Your task to perform on an android device: Toggle the flashlight Image 0: 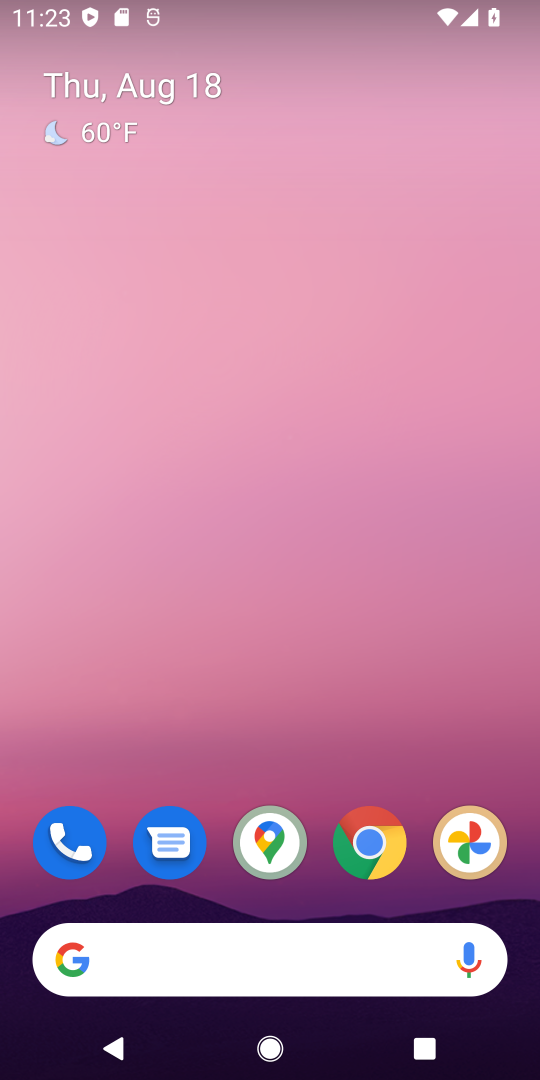
Step 0: drag from (304, 901) to (300, 160)
Your task to perform on an android device: Toggle the flashlight Image 1: 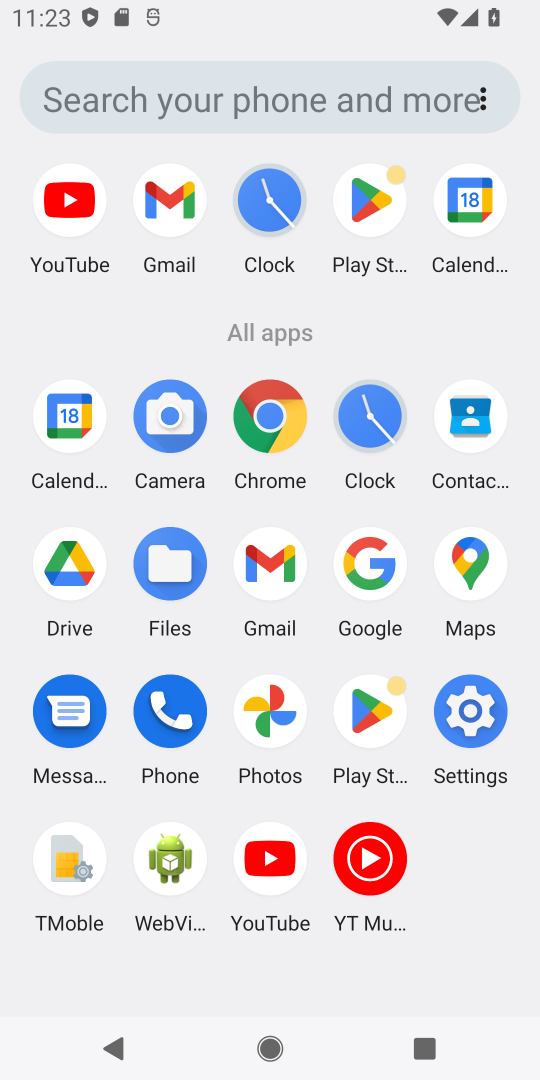
Step 1: click (458, 710)
Your task to perform on an android device: Toggle the flashlight Image 2: 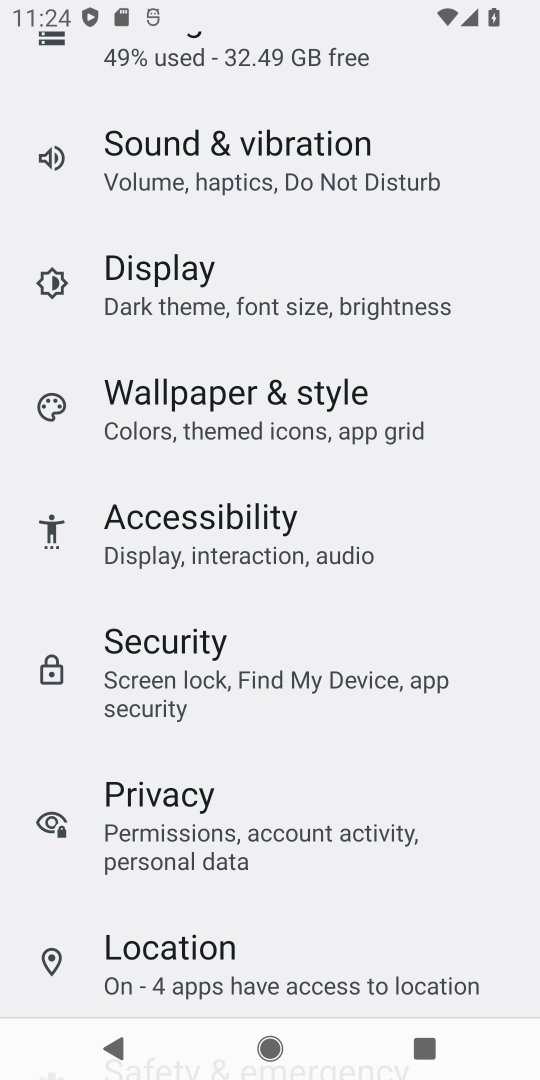
Step 2: task complete